Your task to perform on an android device: Clear the cart on walmart. Search for "dell xps" on walmart, select the first entry, and add it to the cart. Image 0: 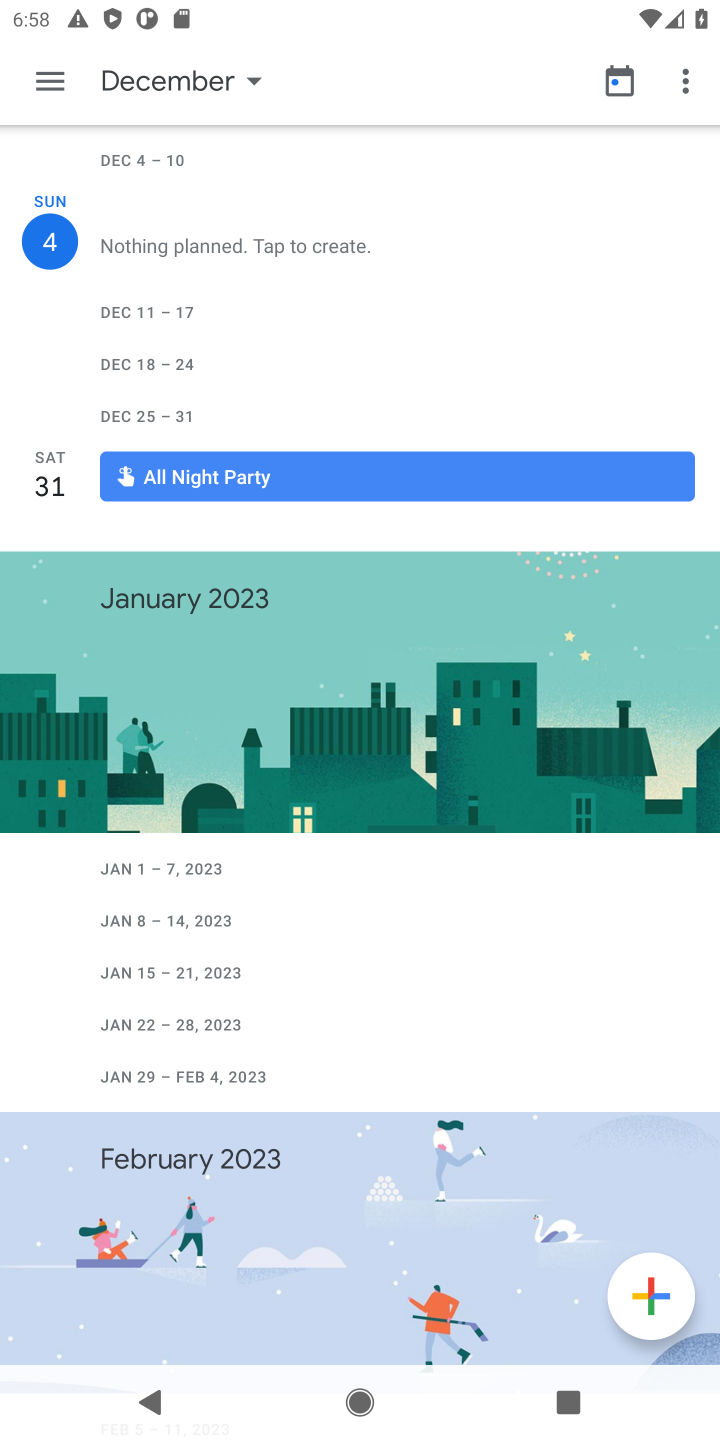
Step 0: click (485, 1144)
Your task to perform on an android device: Clear the cart on walmart. Search for "dell xps" on walmart, select the first entry, and add it to the cart. Image 1: 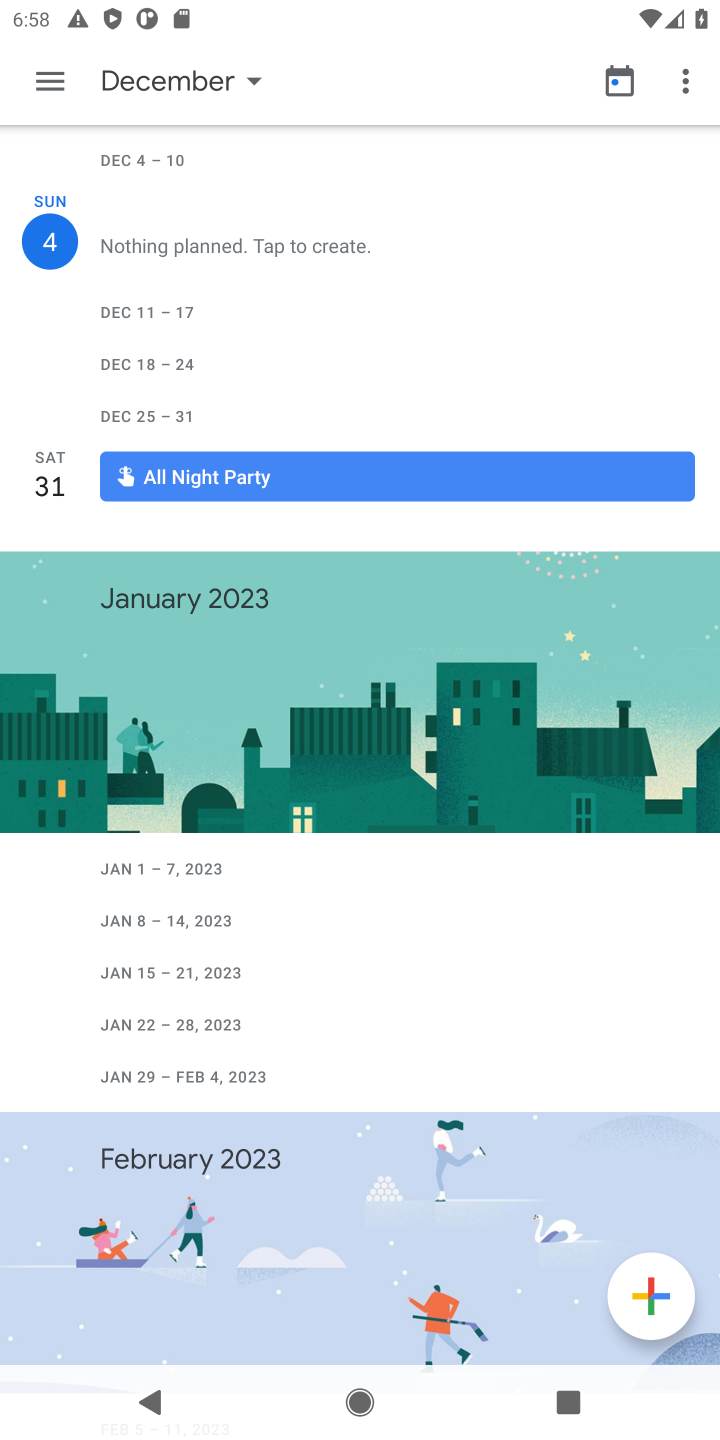
Step 1: press home button
Your task to perform on an android device: Clear the cart on walmart. Search for "dell xps" on walmart, select the first entry, and add it to the cart. Image 2: 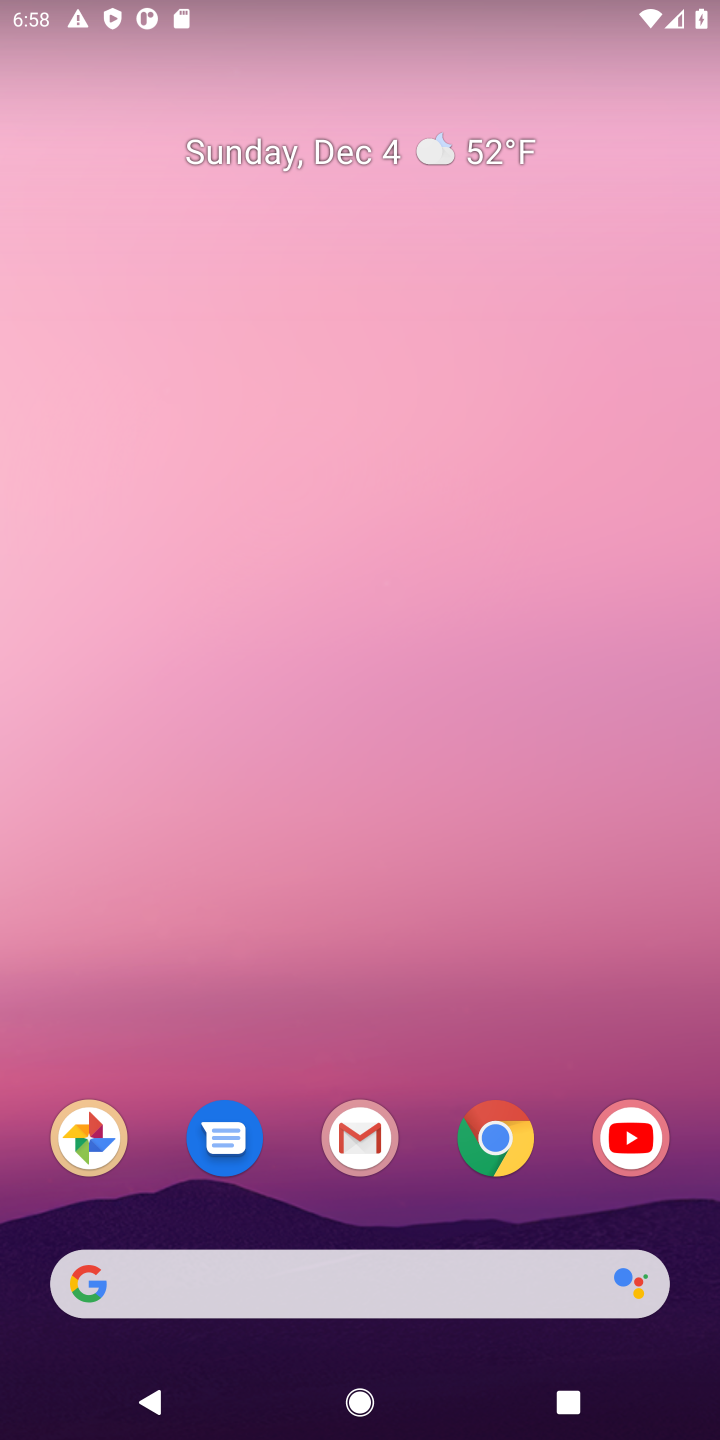
Step 2: click (497, 1148)
Your task to perform on an android device: Clear the cart on walmart. Search for "dell xps" on walmart, select the first entry, and add it to the cart. Image 3: 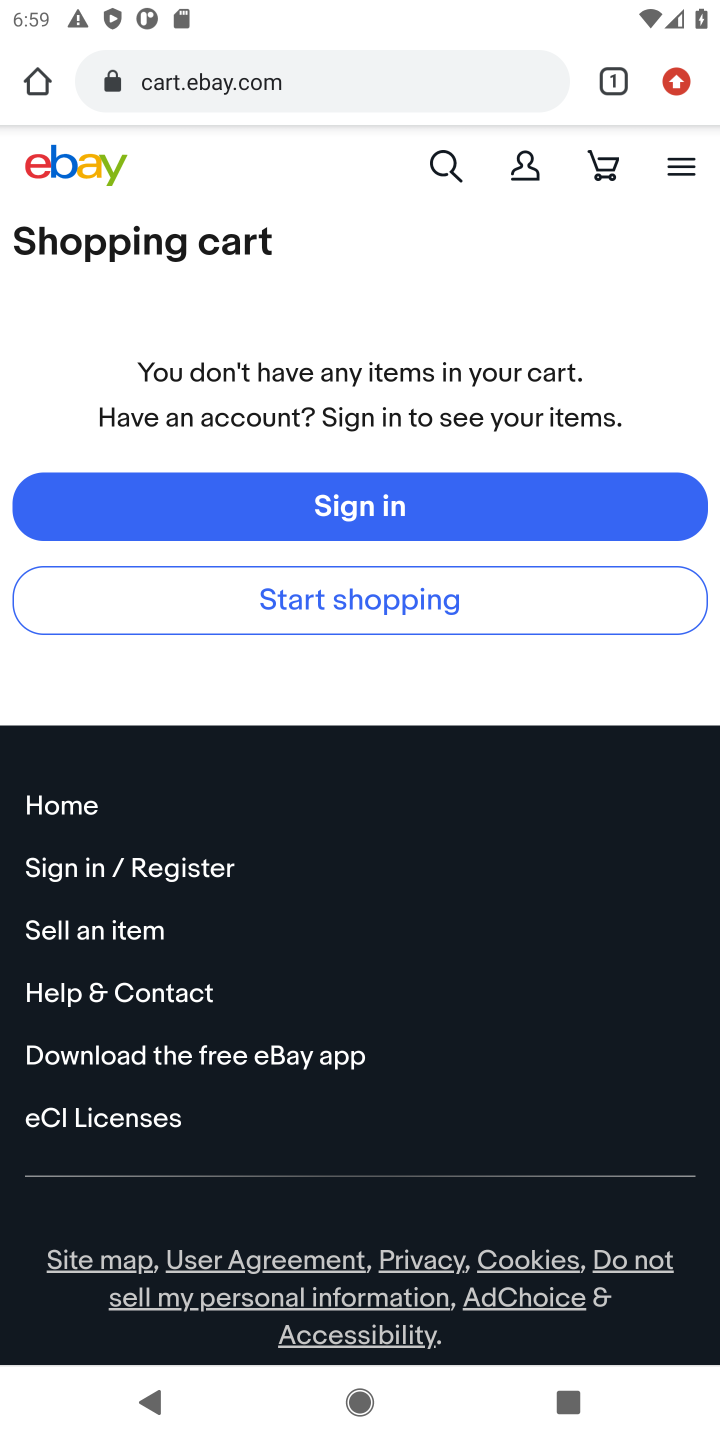
Step 3: click (404, 70)
Your task to perform on an android device: Clear the cart on walmart. Search for "dell xps" on walmart, select the first entry, and add it to the cart. Image 4: 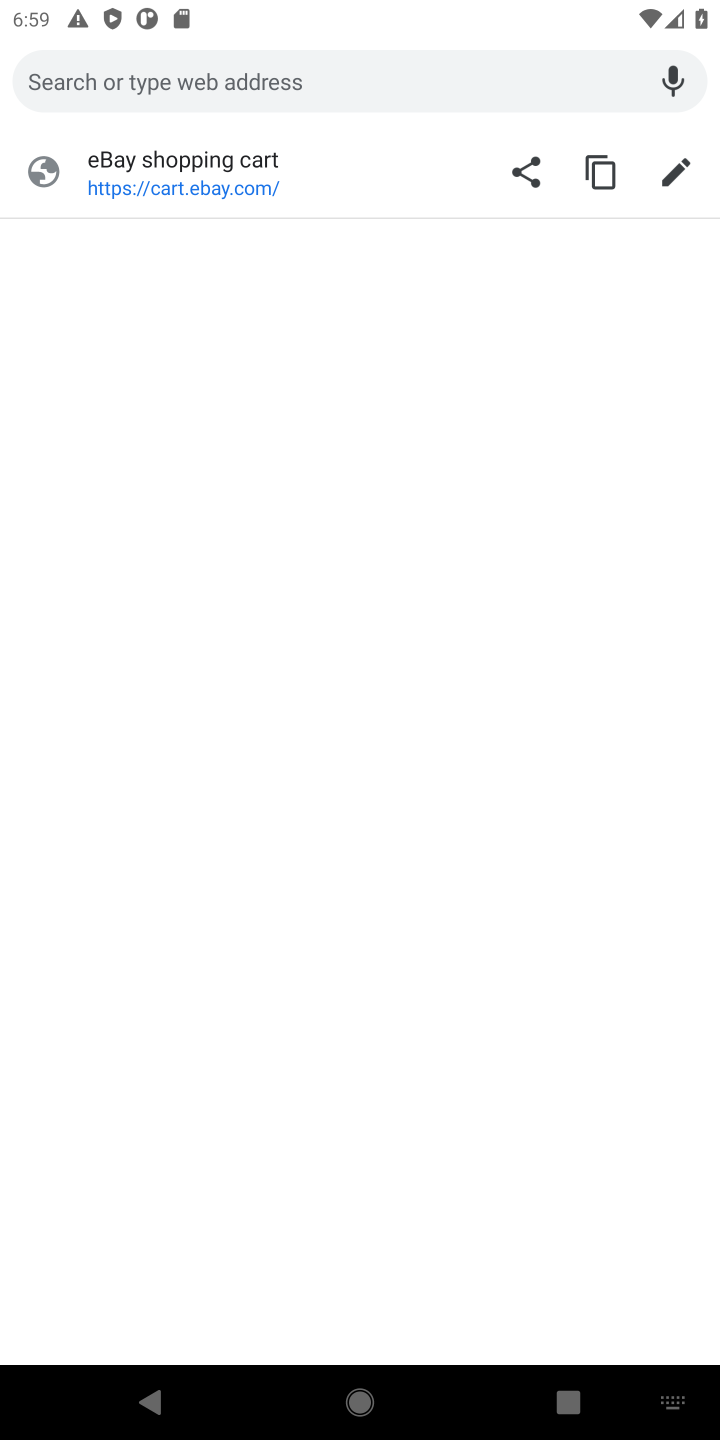
Step 4: type "walmart"
Your task to perform on an android device: Clear the cart on walmart. Search for "dell xps" on walmart, select the first entry, and add it to the cart. Image 5: 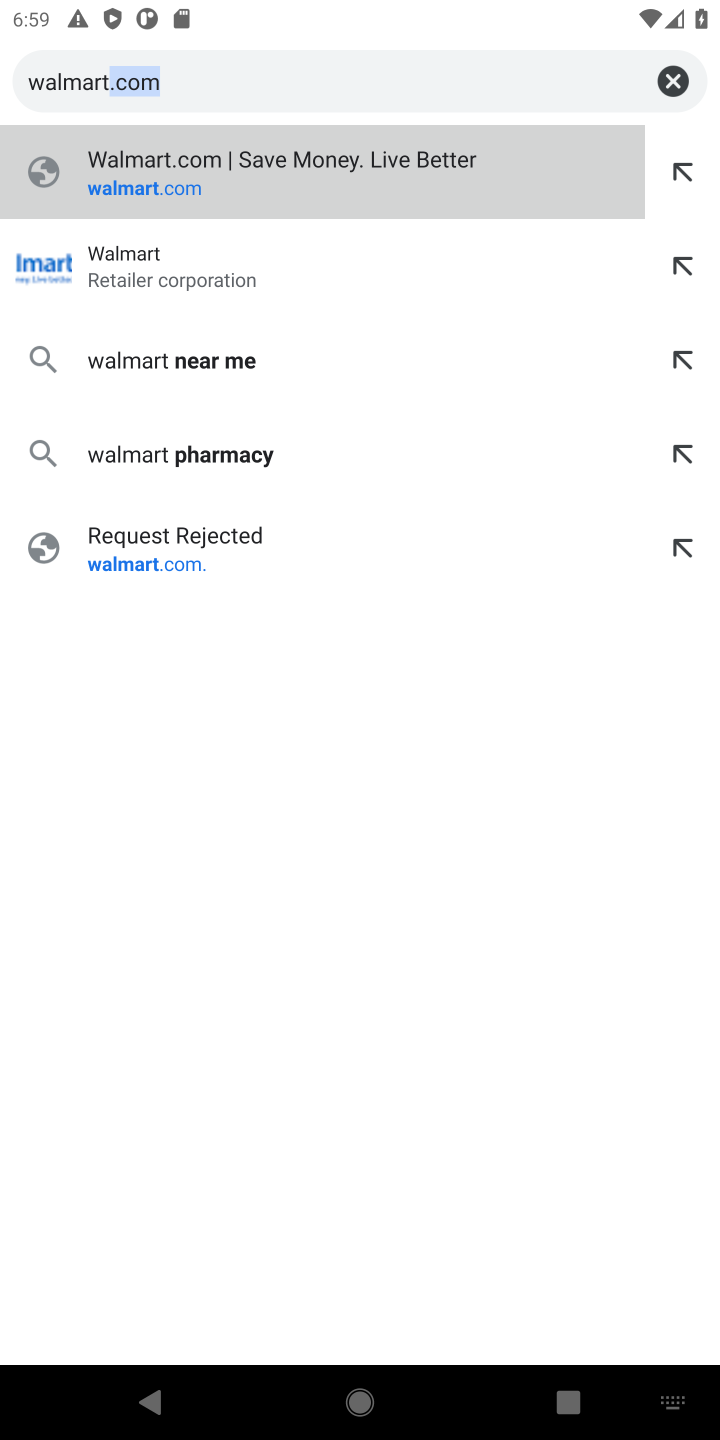
Step 5: press enter
Your task to perform on an android device: Clear the cart on walmart. Search for "dell xps" on walmart, select the first entry, and add it to the cart. Image 6: 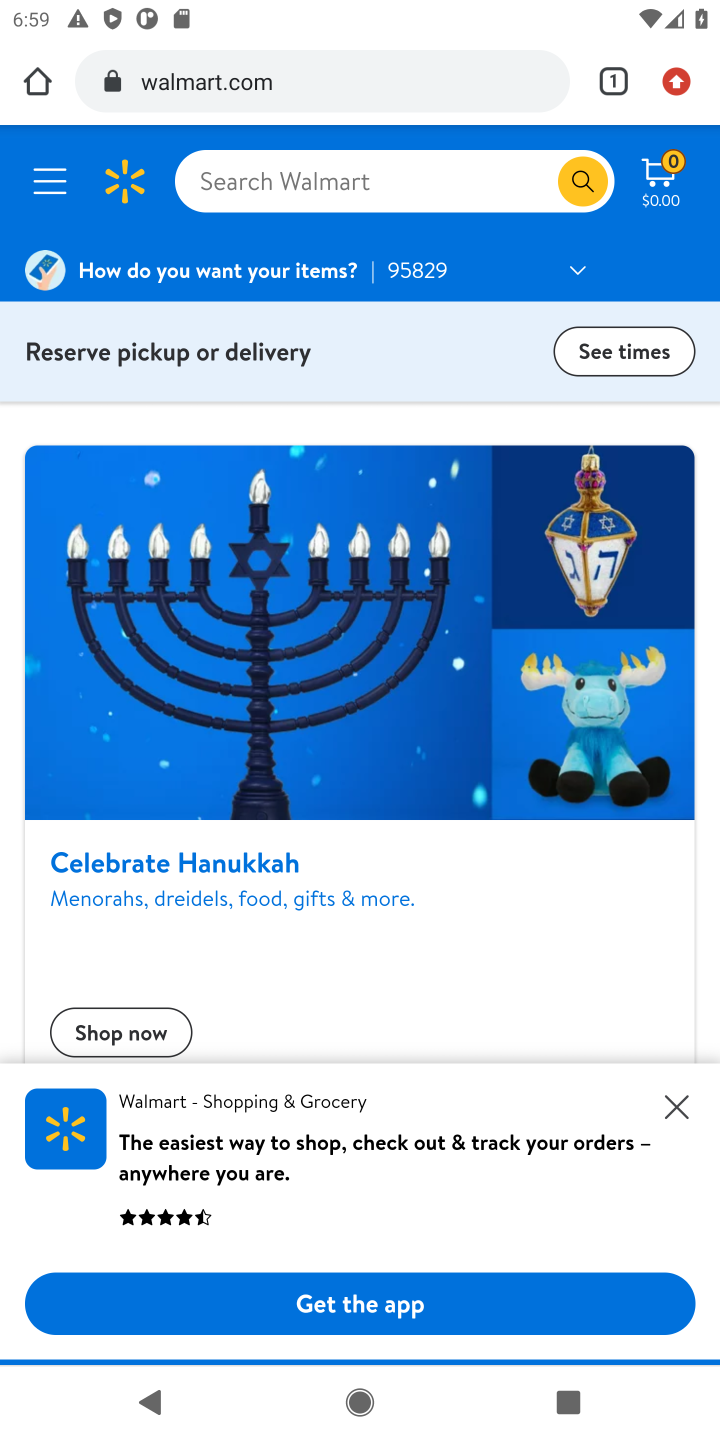
Step 6: click (343, 182)
Your task to perform on an android device: Clear the cart on walmart. Search for "dell xps" on walmart, select the first entry, and add it to the cart. Image 7: 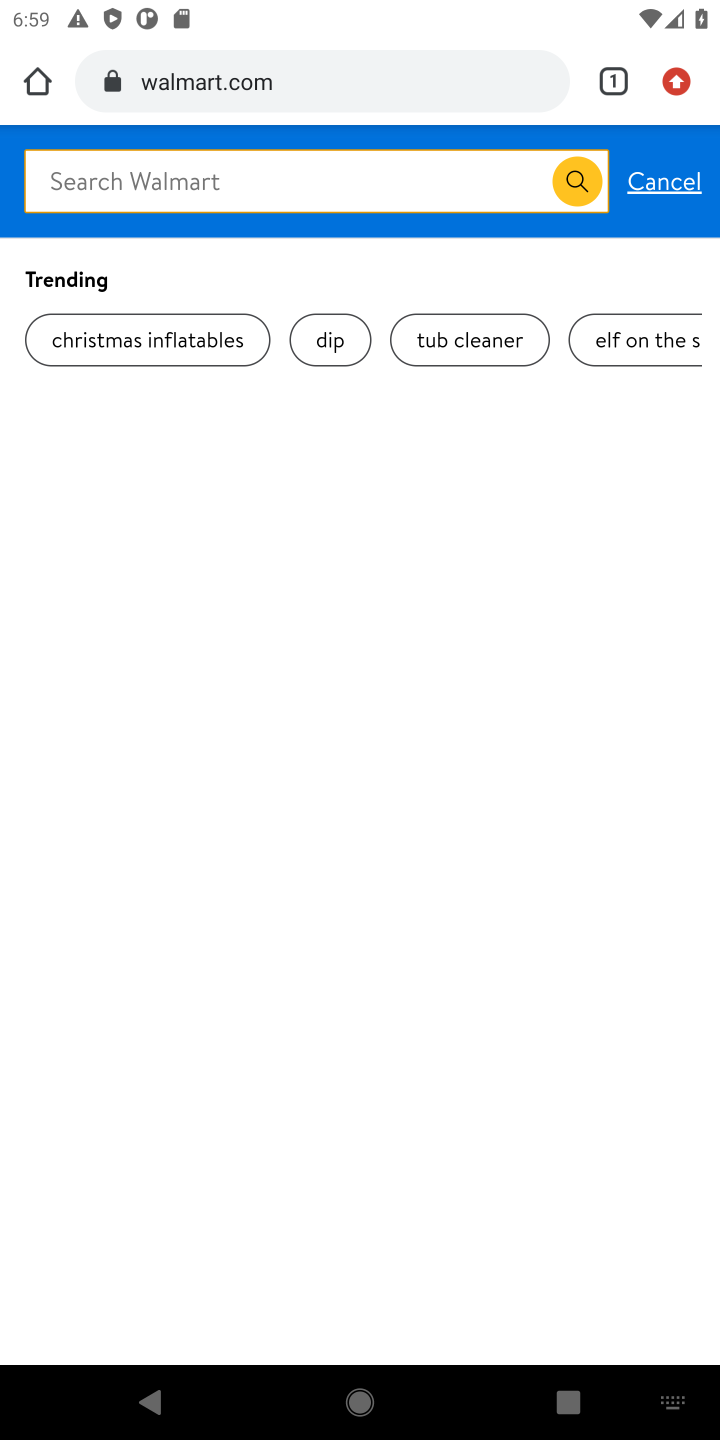
Step 7: press enter
Your task to perform on an android device: Clear the cart on walmart. Search for "dell xps" on walmart, select the first entry, and add it to the cart. Image 8: 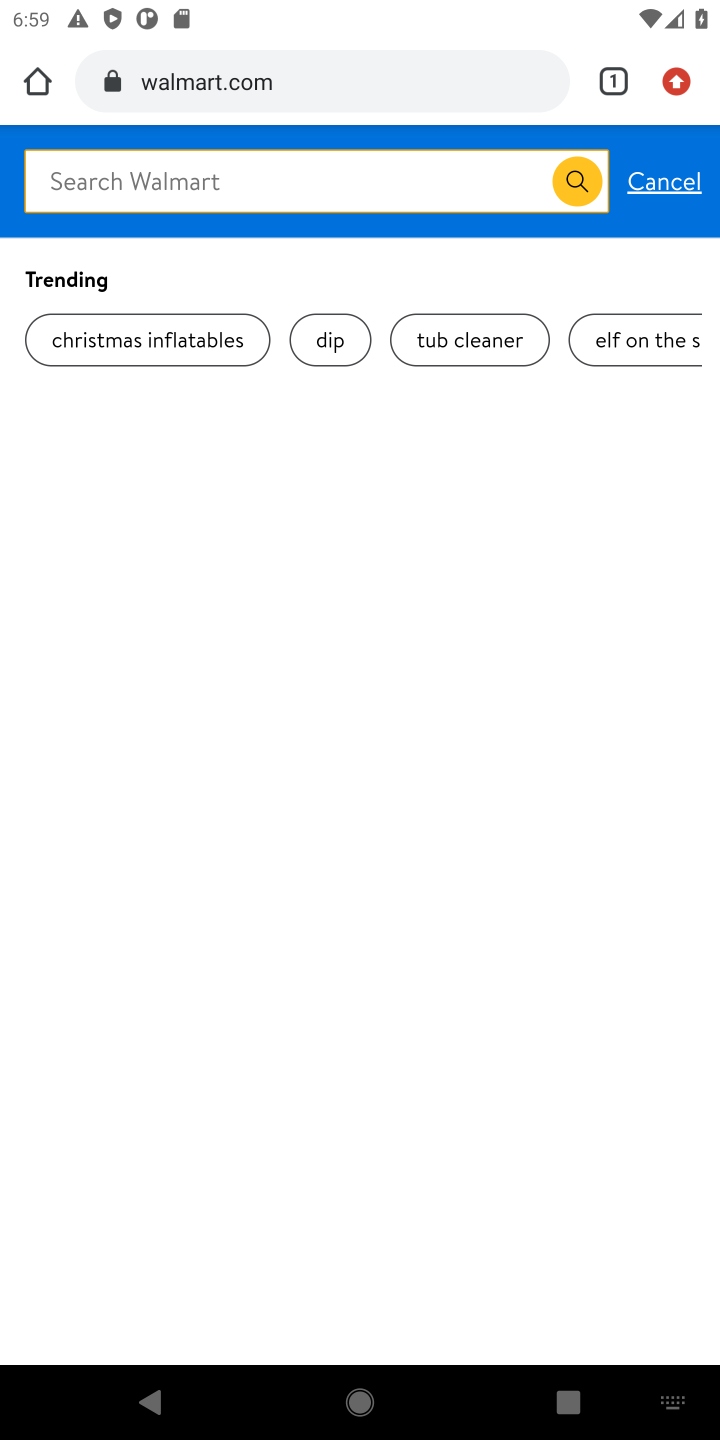
Step 8: type "dell xps"
Your task to perform on an android device: Clear the cart on walmart. Search for "dell xps" on walmart, select the first entry, and add it to the cart. Image 9: 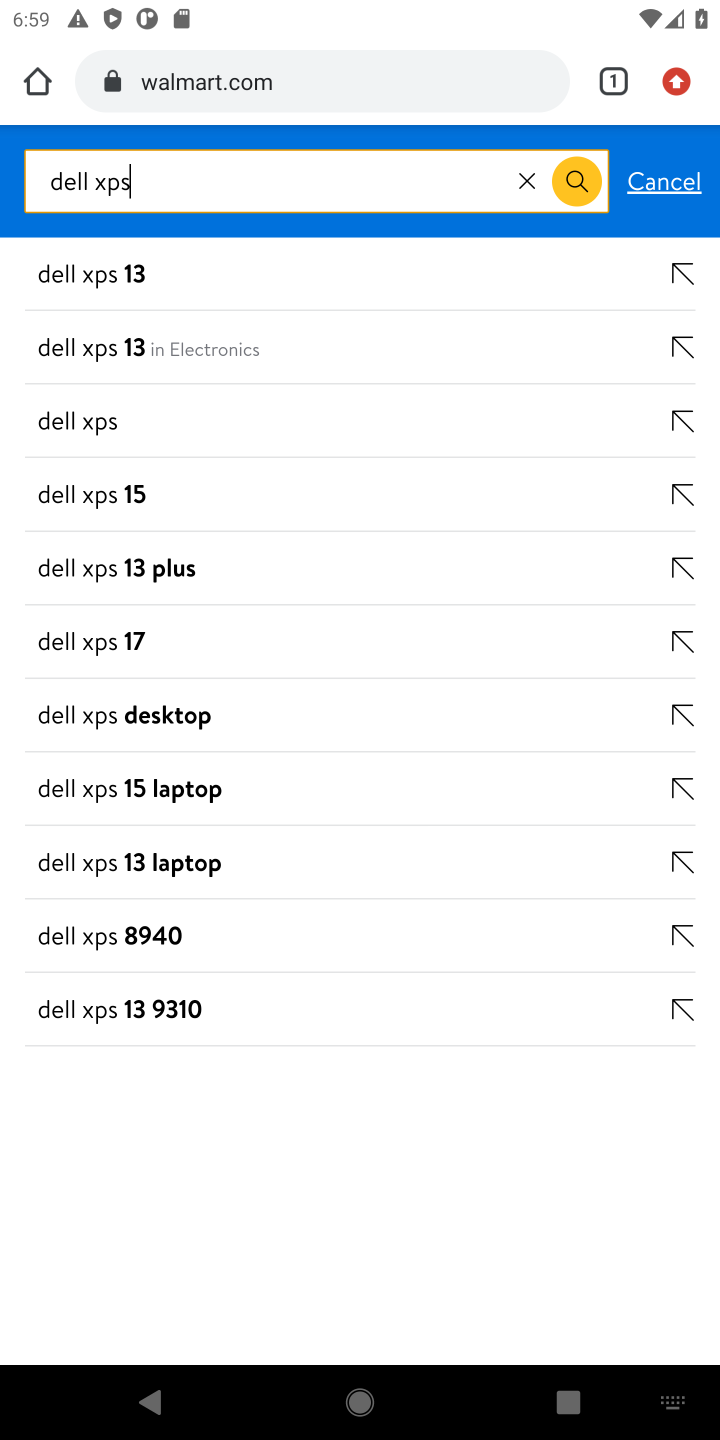
Step 9: click (89, 420)
Your task to perform on an android device: Clear the cart on walmart. Search for "dell xps" on walmart, select the first entry, and add it to the cart. Image 10: 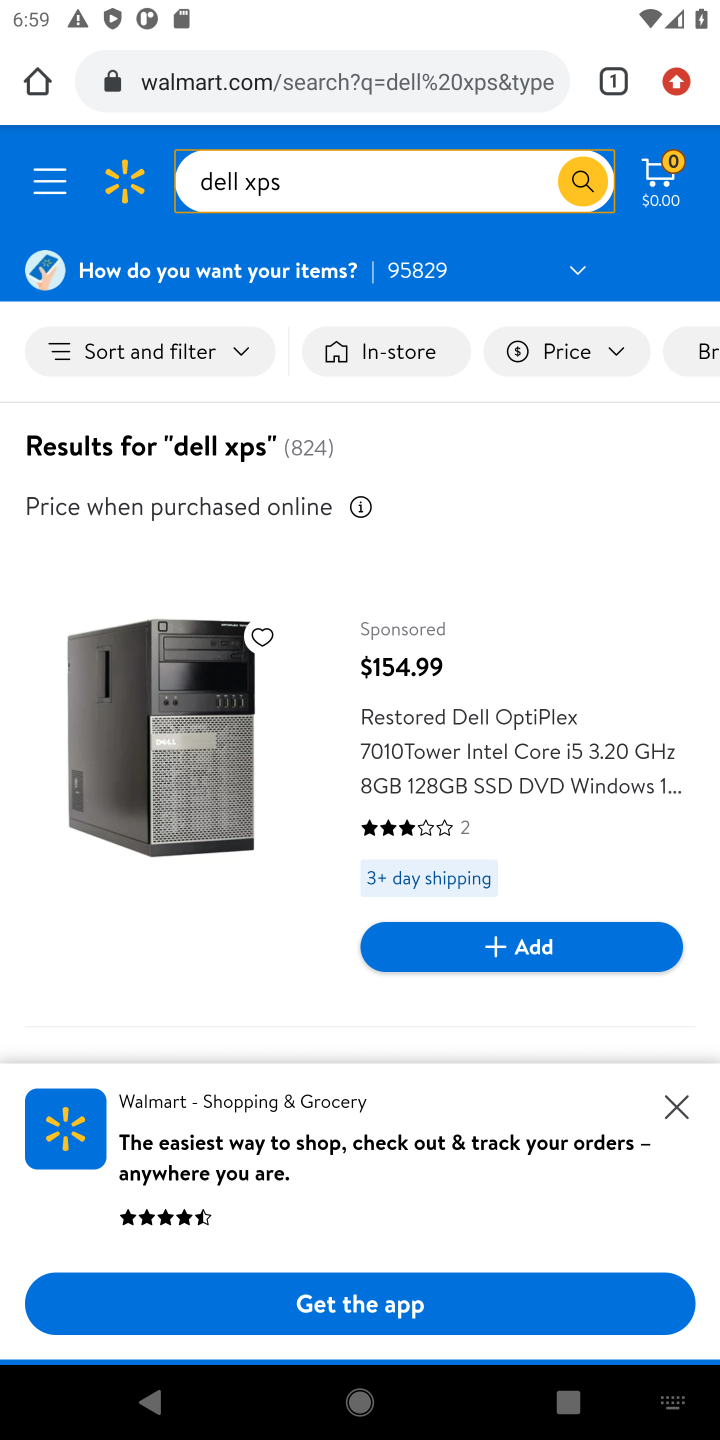
Step 10: drag from (225, 789) to (323, 202)
Your task to perform on an android device: Clear the cart on walmart. Search for "dell xps" on walmart, select the first entry, and add it to the cart. Image 11: 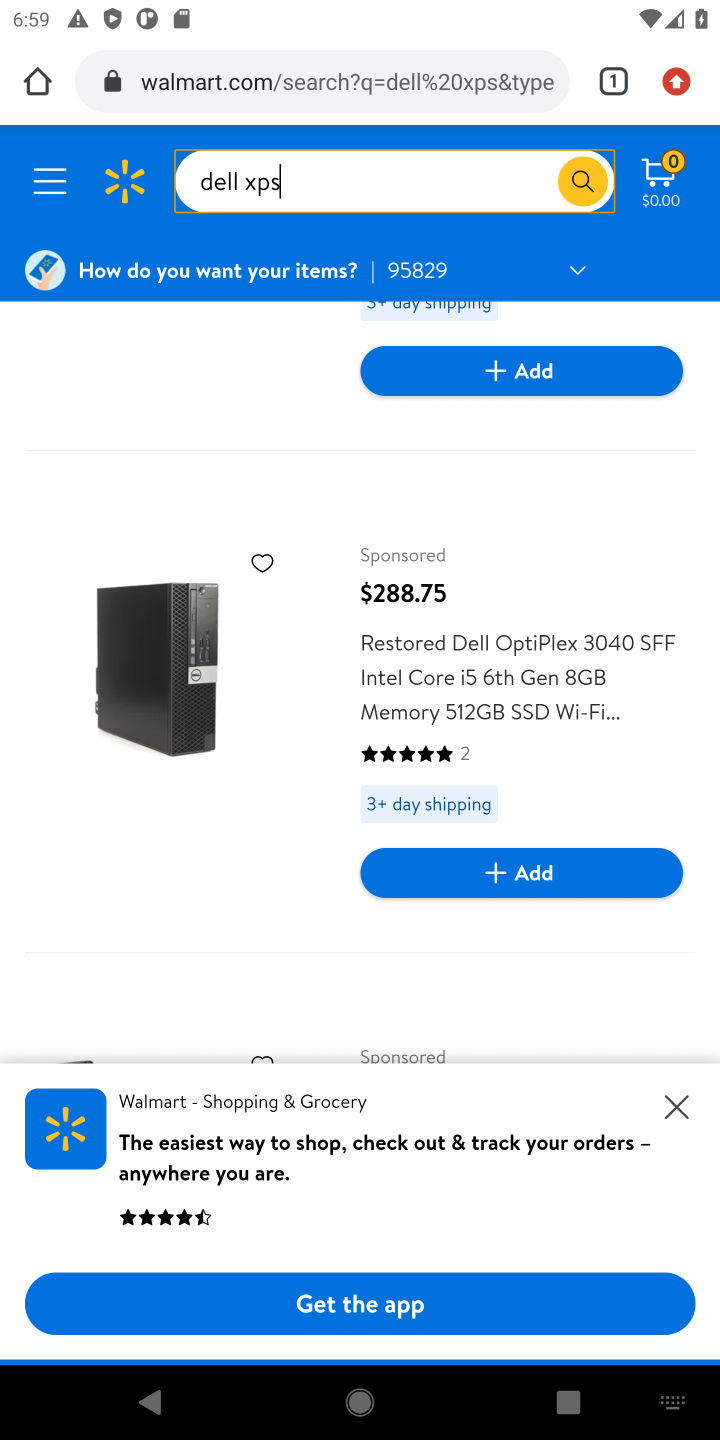
Step 11: click (671, 1100)
Your task to perform on an android device: Clear the cart on walmart. Search for "dell xps" on walmart, select the first entry, and add it to the cart. Image 12: 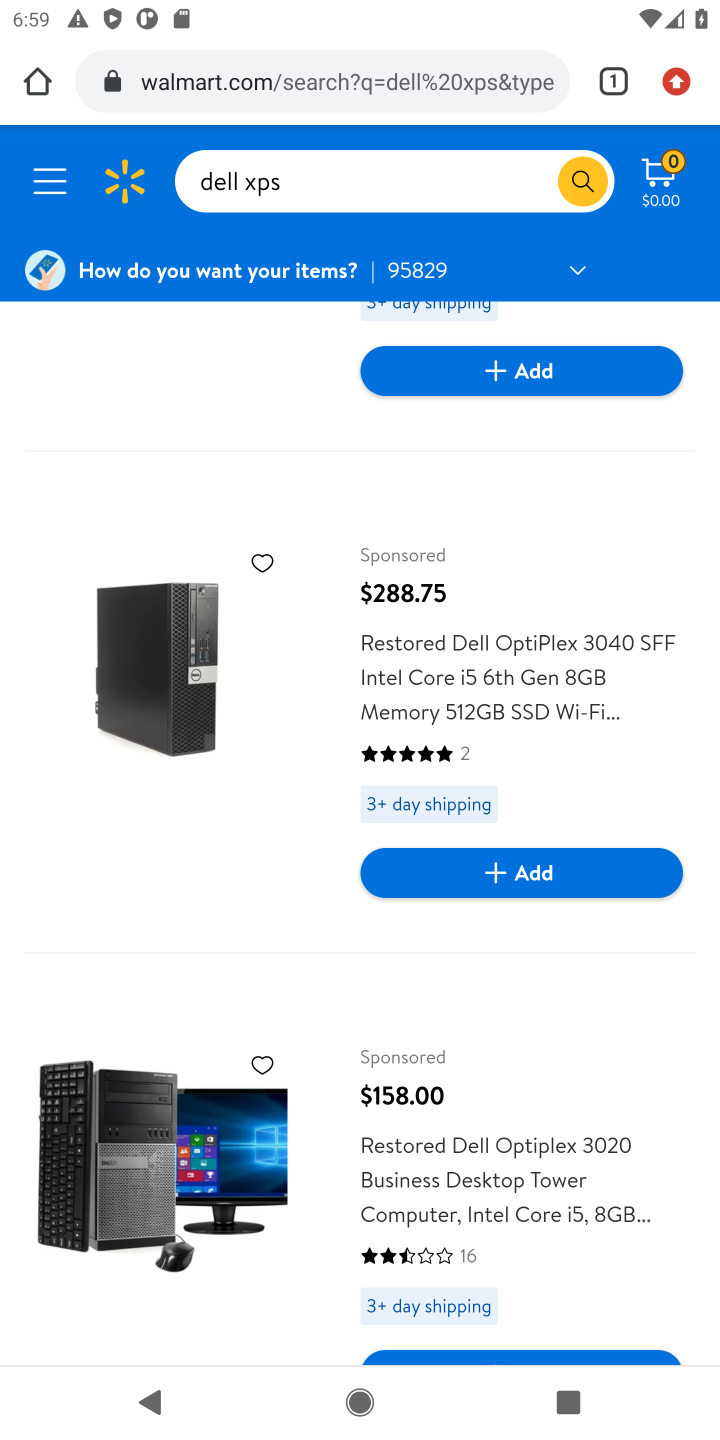
Step 12: drag from (151, 1210) to (188, 539)
Your task to perform on an android device: Clear the cart on walmart. Search for "dell xps" on walmart, select the first entry, and add it to the cart. Image 13: 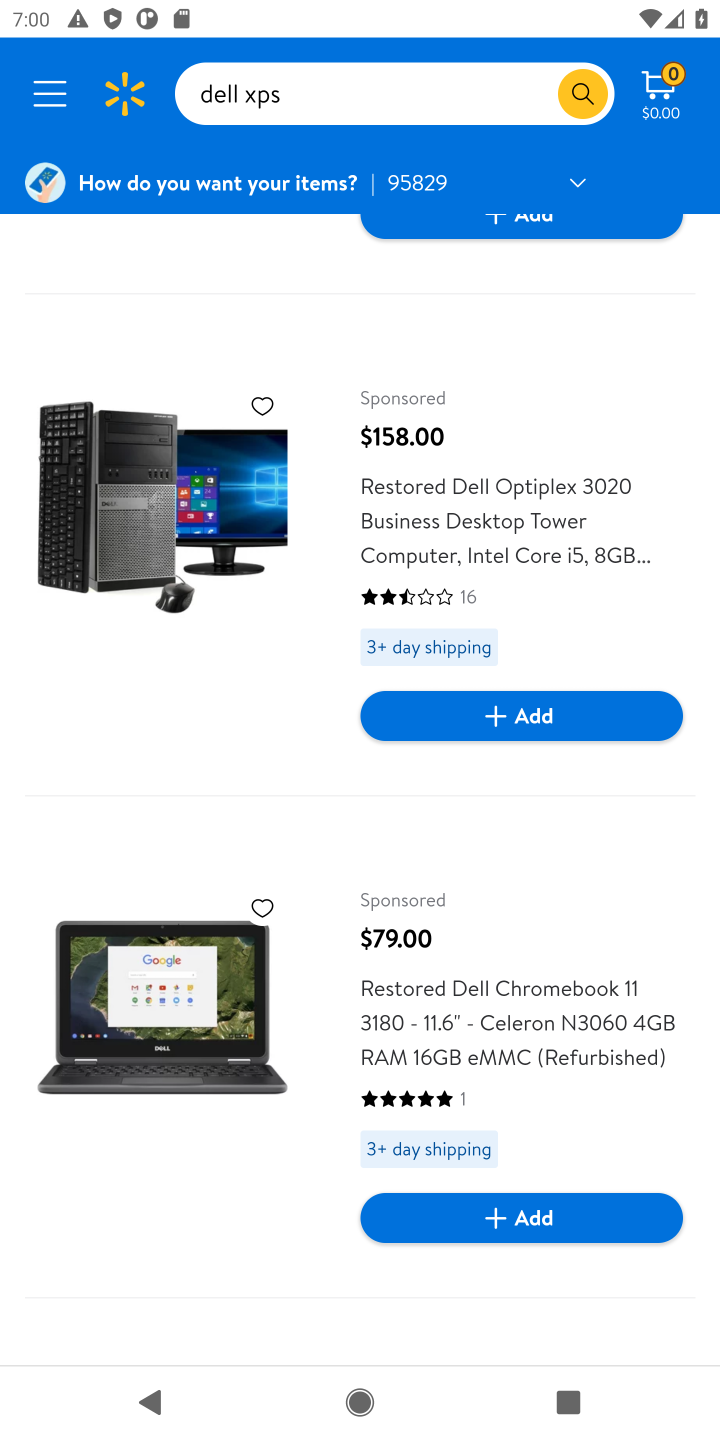
Step 13: drag from (206, 1009) to (228, 365)
Your task to perform on an android device: Clear the cart on walmart. Search for "dell xps" on walmart, select the first entry, and add it to the cart. Image 14: 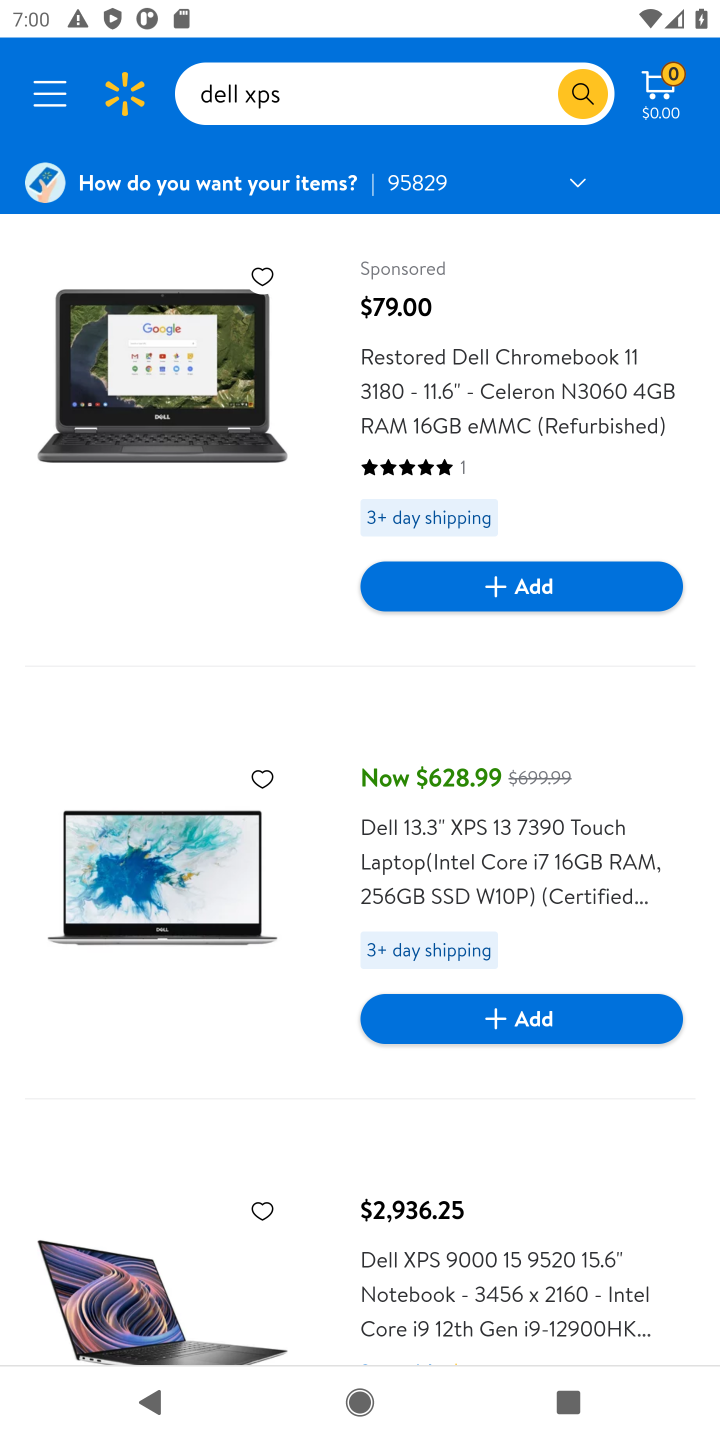
Step 14: drag from (137, 1287) to (202, 711)
Your task to perform on an android device: Clear the cart on walmart. Search for "dell xps" on walmart, select the first entry, and add it to the cart. Image 15: 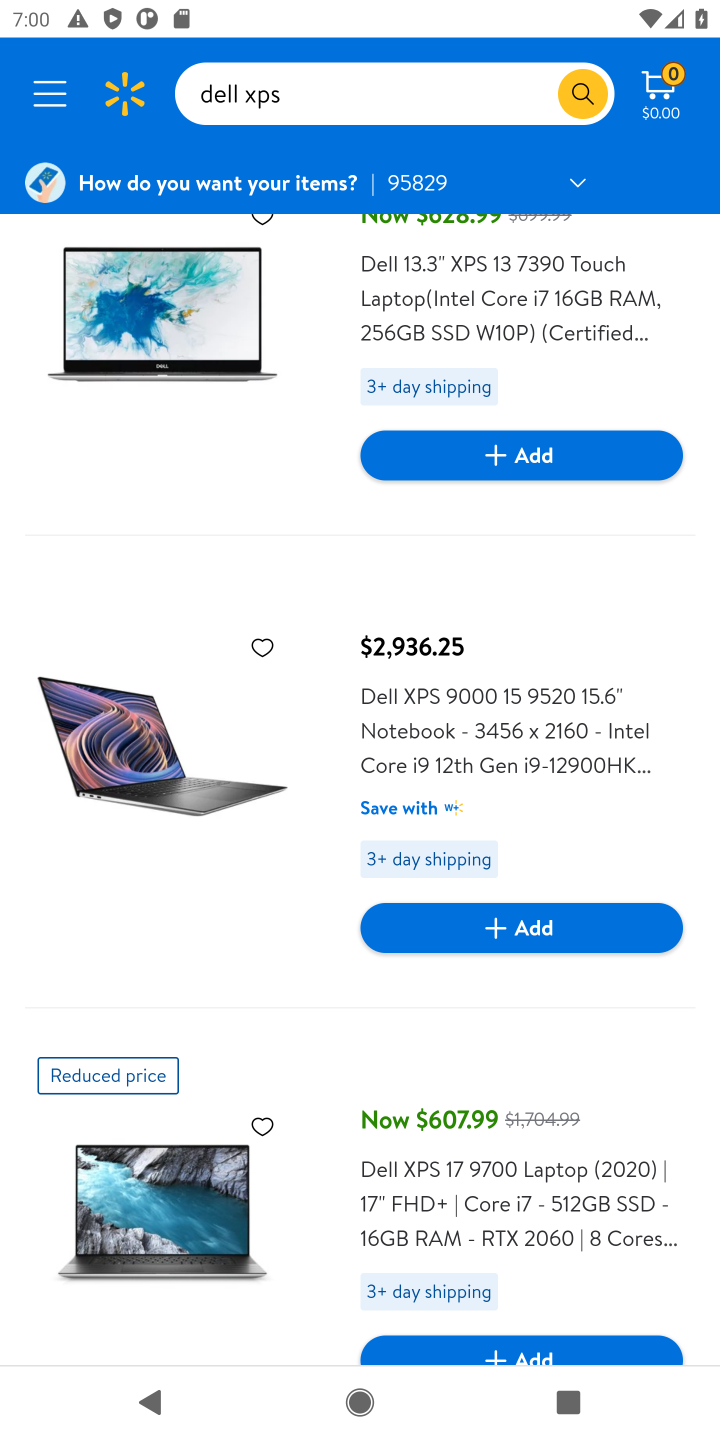
Step 15: click (135, 737)
Your task to perform on an android device: Clear the cart on walmart. Search for "dell xps" on walmart, select the first entry, and add it to the cart. Image 16: 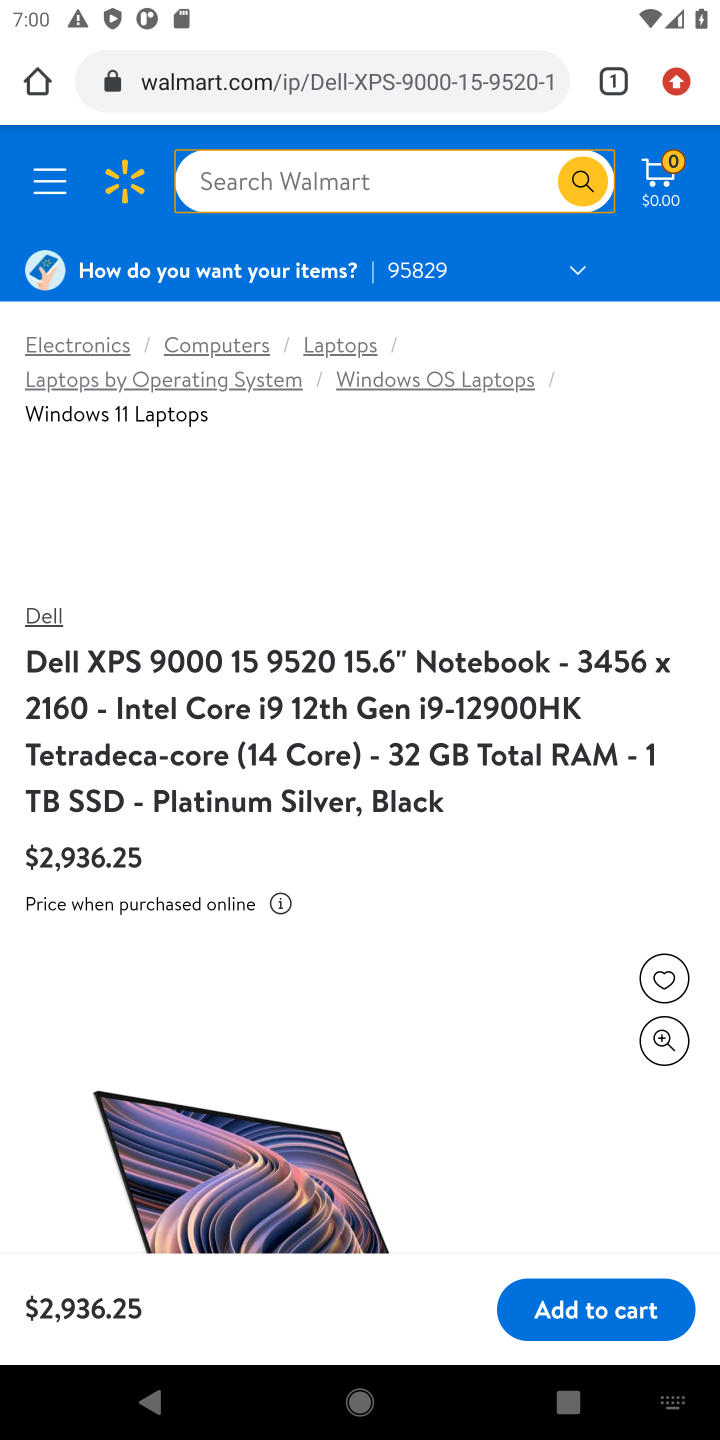
Step 16: drag from (545, 1107) to (596, 569)
Your task to perform on an android device: Clear the cart on walmart. Search for "dell xps" on walmart, select the first entry, and add it to the cart. Image 17: 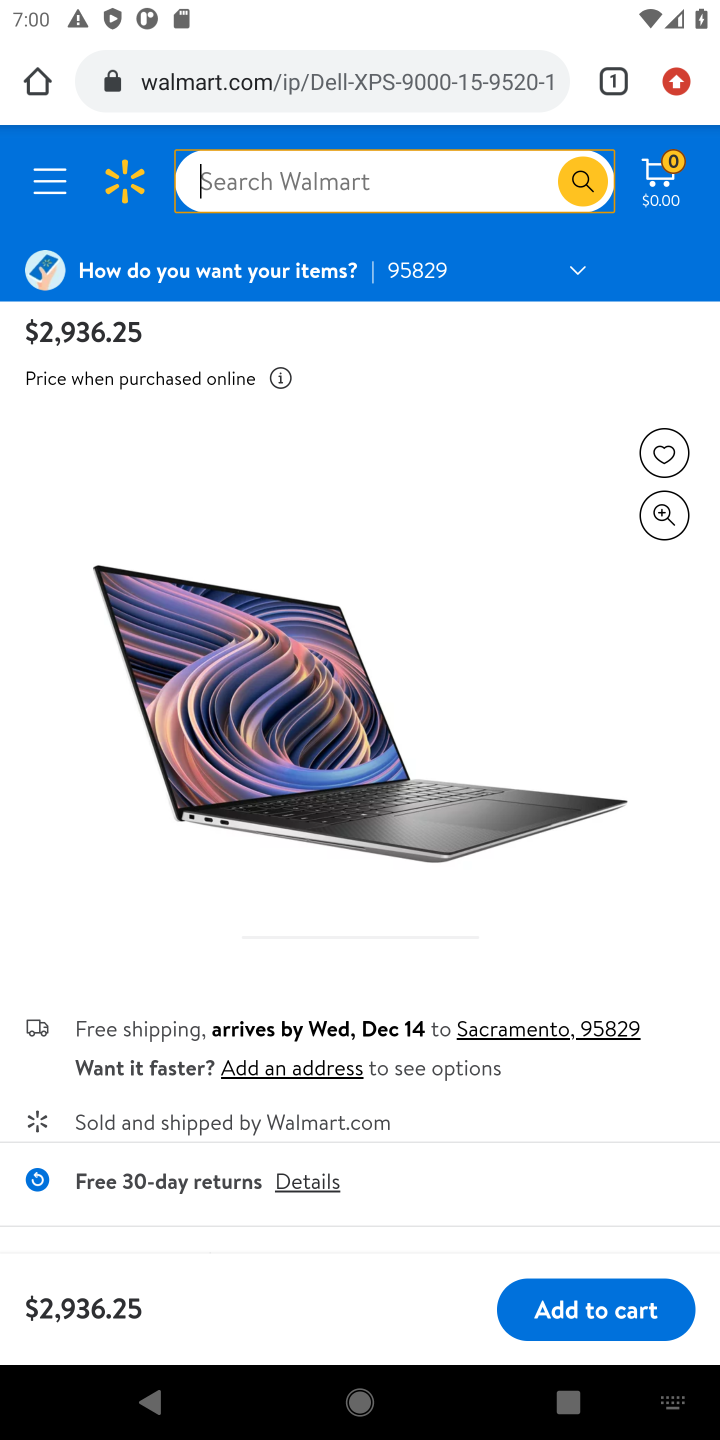
Step 17: click (590, 1318)
Your task to perform on an android device: Clear the cart on walmart. Search for "dell xps" on walmart, select the first entry, and add it to the cart. Image 18: 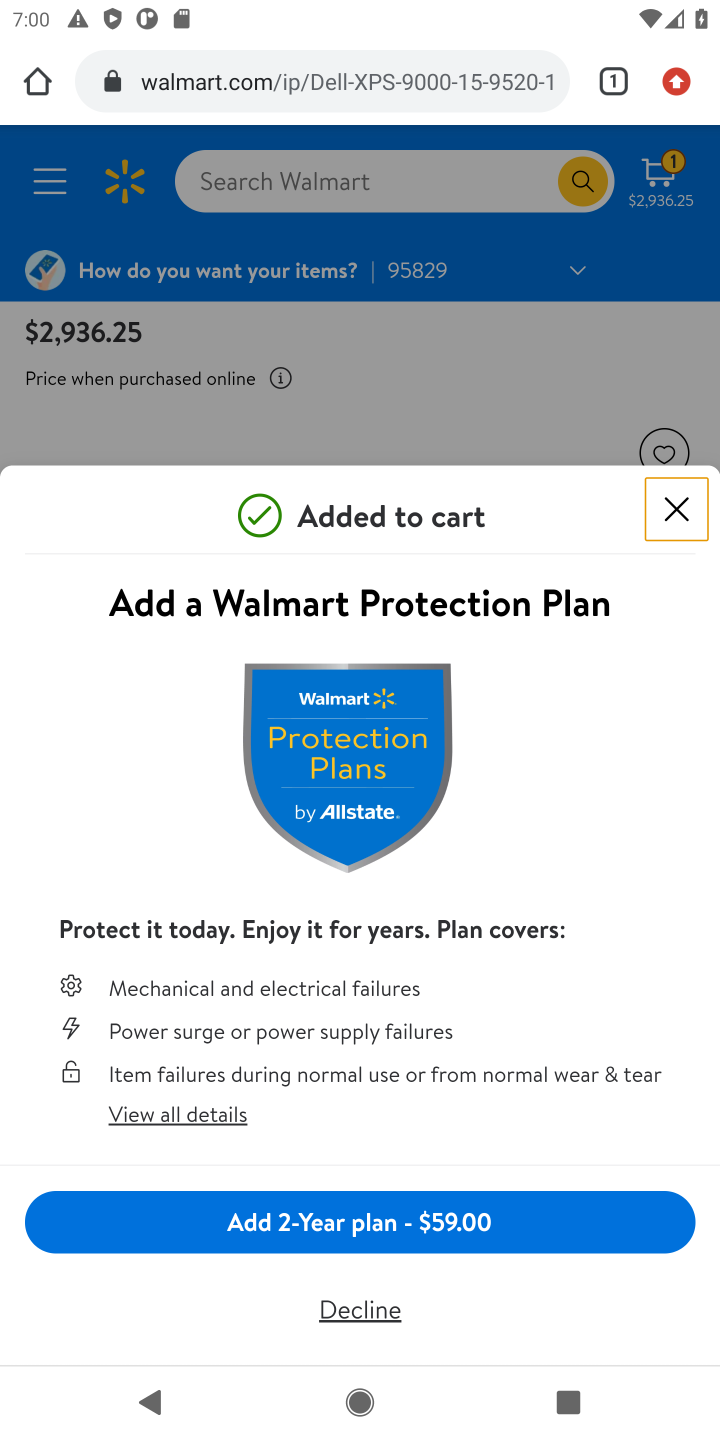
Step 18: click (685, 513)
Your task to perform on an android device: Clear the cart on walmart. Search for "dell xps" on walmart, select the first entry, and add it to the cart. Image 19: 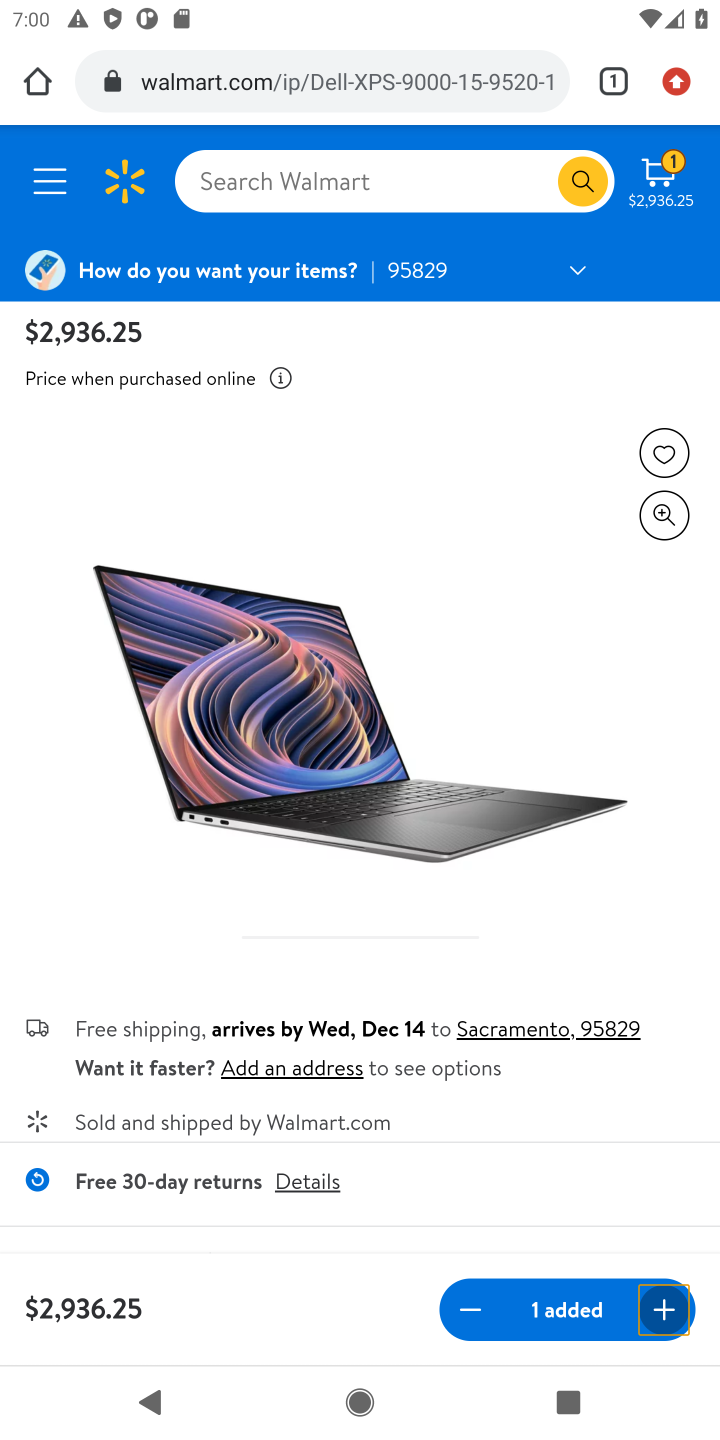
Step 19: click (663, 180)
Your task to perform on an android device: Clear the cart on walmart. Search for "dell xps" on walmart, select the first entry, and add it to the cart. Image 20: 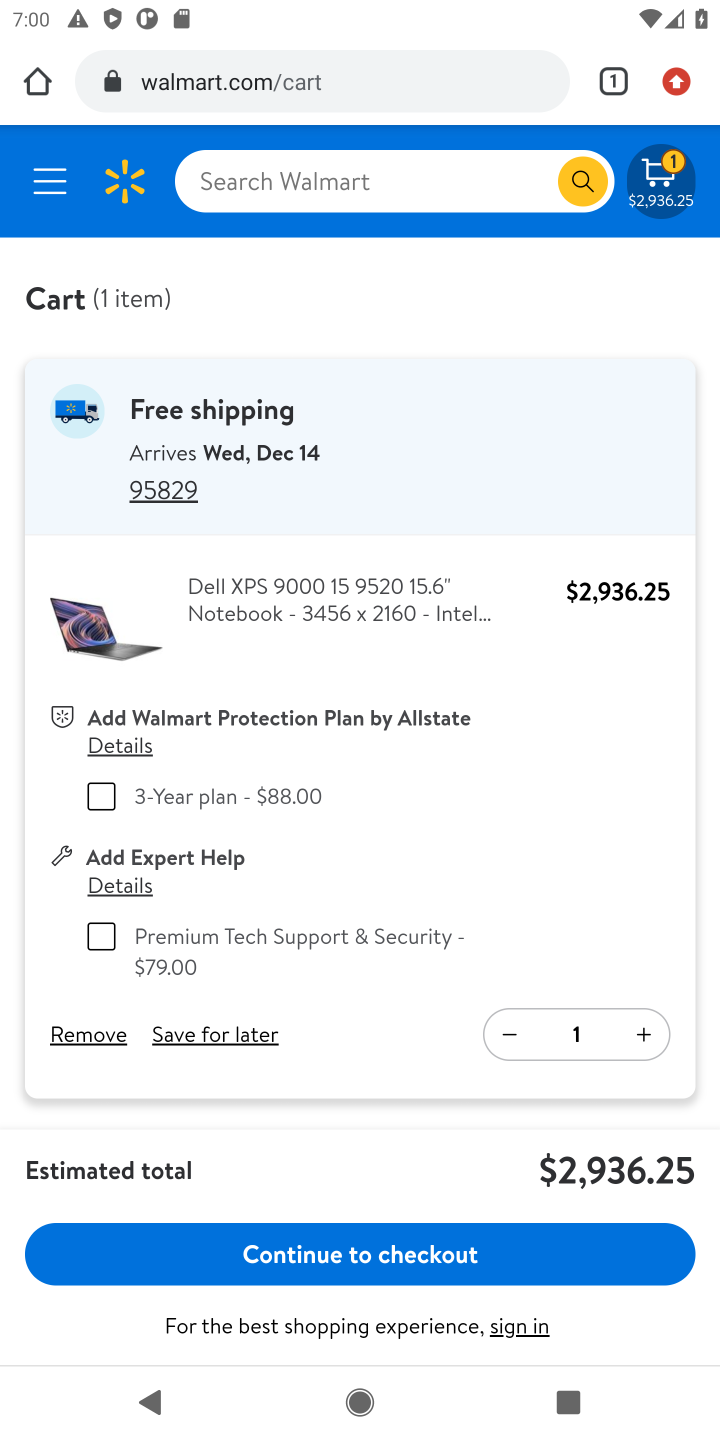
Step 20: task complete